Your task to perform on an android device: turn off smart reply in the gmail app Image 0: 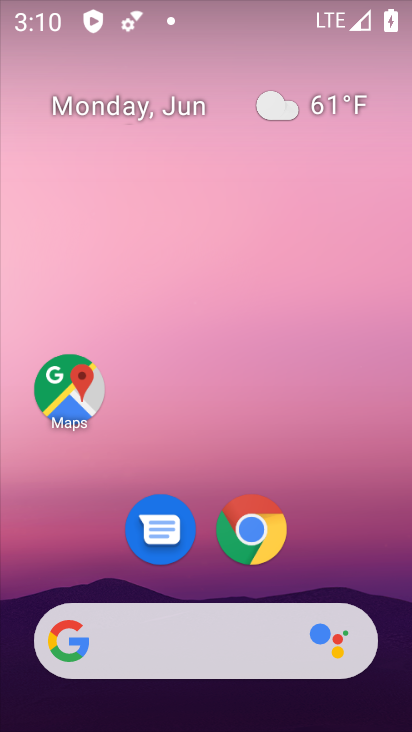
Step 0: press back button
Your task to perform on an android device: turn off smart reply in the gmail app Image 1: 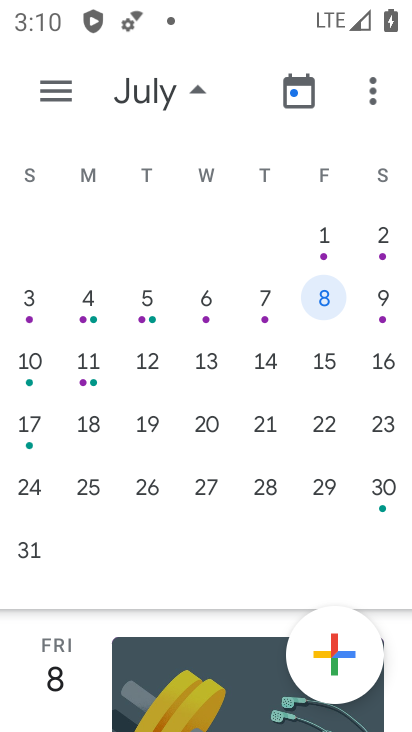
Step 1: drag from (307, 664) to (247, 114)
Your task to perform on an android device: turn off smart reply in the gmail app Image 2: 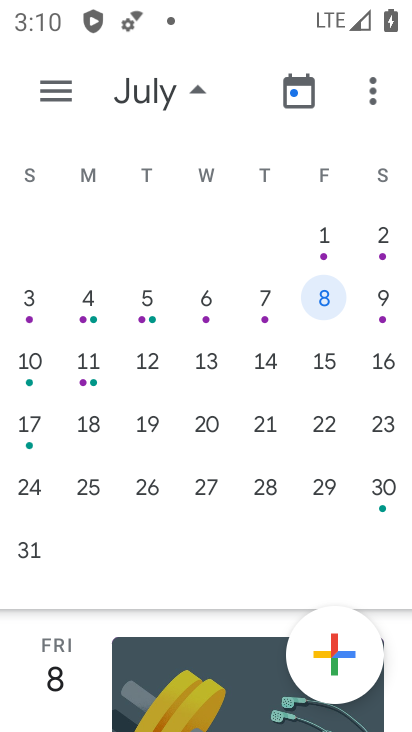
Step 2: press back button
Your task to perform on an android device: turn off smart reply in the gmail app Image 3: 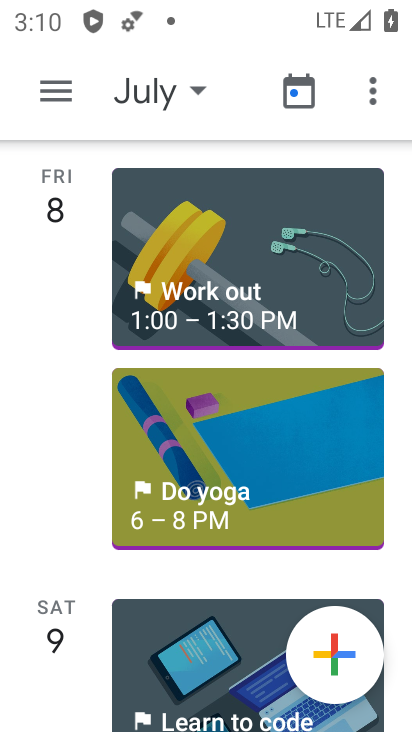
Step 3: press home button
Your task to perform on an android device: turn off smart reply in the gmail app Image 4: 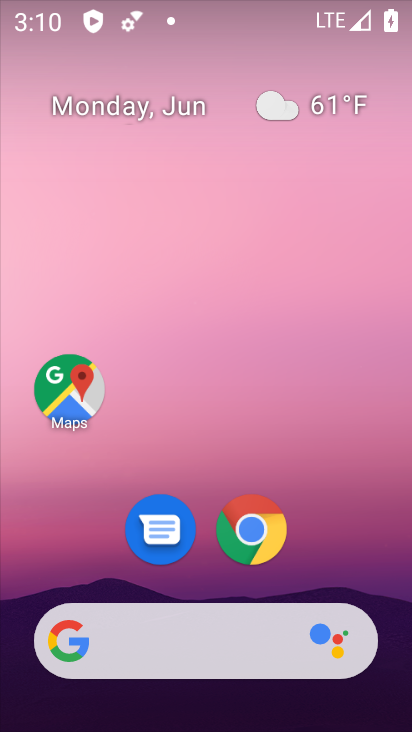
Step 4: drag from (223, 668) to (100, 0)
Your task to perform on an android device: turn off smart reply in the gmail app Image 5: 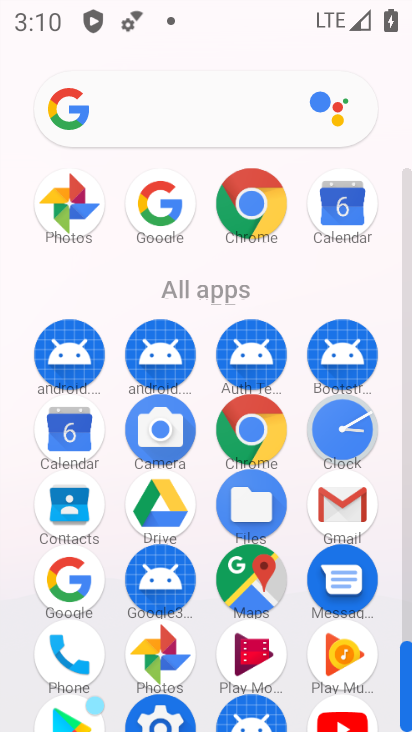
Step 5: click (335, 497)
Your task to perform on an android device: turn off smart reply in the gmail app Image 6: 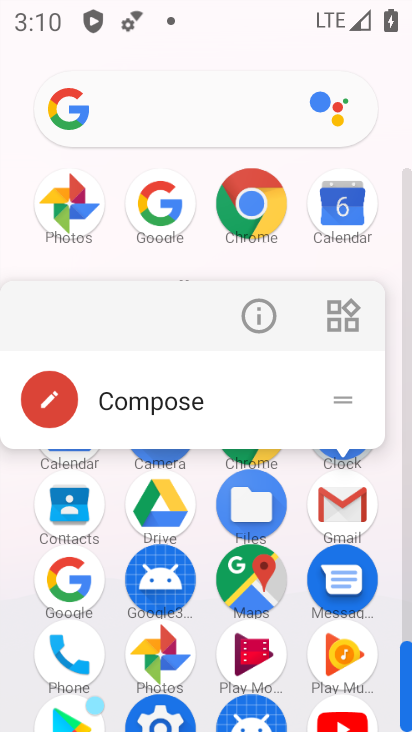
Step 6: click (319, 504)
Your task to perform on an android device: turn off smart reply in the gmail app Image 7: 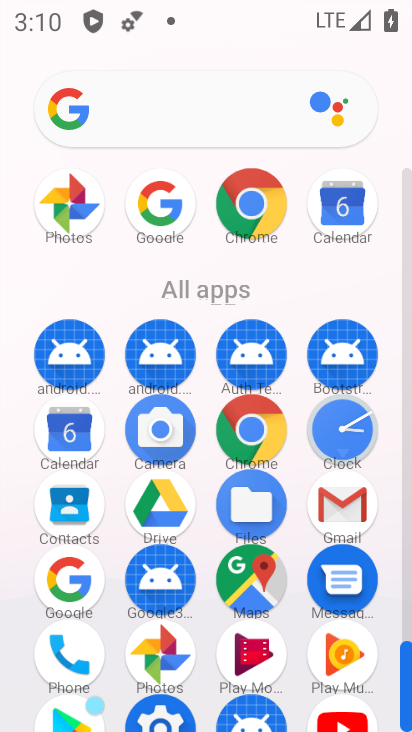
Step 7: click (325, 502)
Your task to perform on an android device: turn off smart reply in the gmail app Image 8: 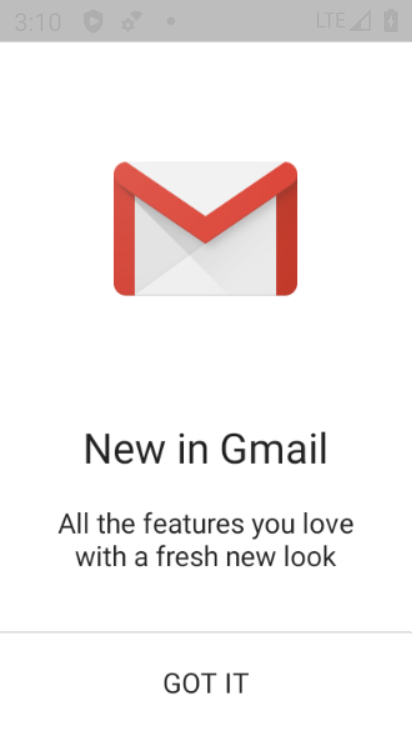
Step 8: click (329, 501)
Your task to perform on an android device: turn off smart reply in the gmail app Image 9: 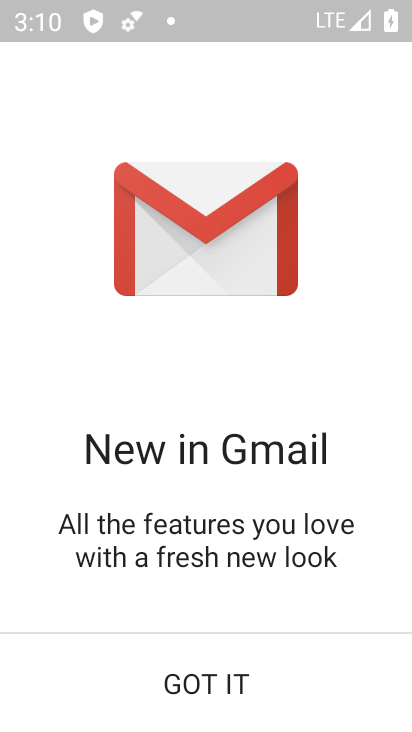
Step 9: click (330, 498)
Your task to perform on an android device: turn off smart reply in the gmail app Image 10: 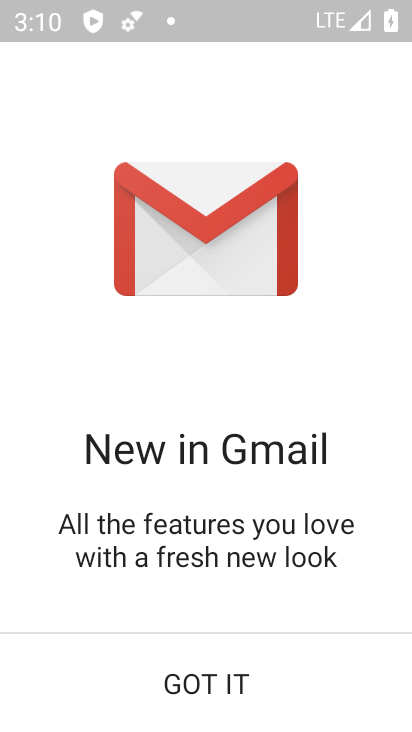
Step 10: click (201, 694)
Your task to perform on an android device: turn off smart reply in the gmail app Image 11: 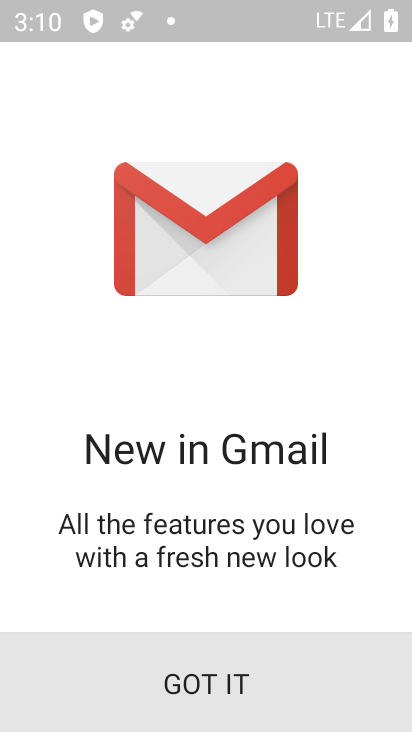
Step 11: click (205, 678)
Your task to perform on an android device: turn off smart reply in the gmail app Image 12: 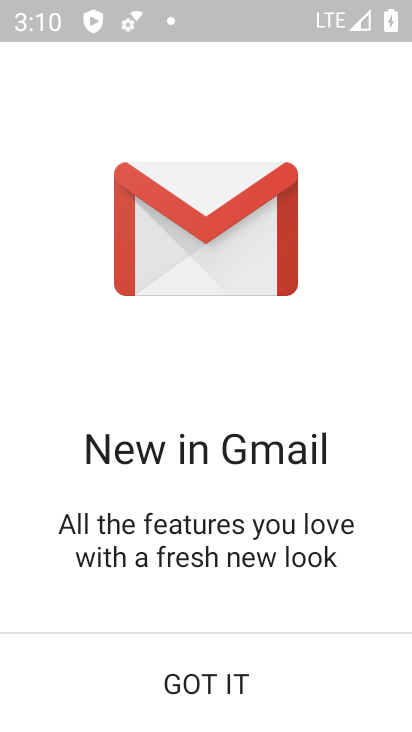
Step 12: click (205, 681)
Your task to perform on an android device: turn off smart reply in the gmail app Image 13: 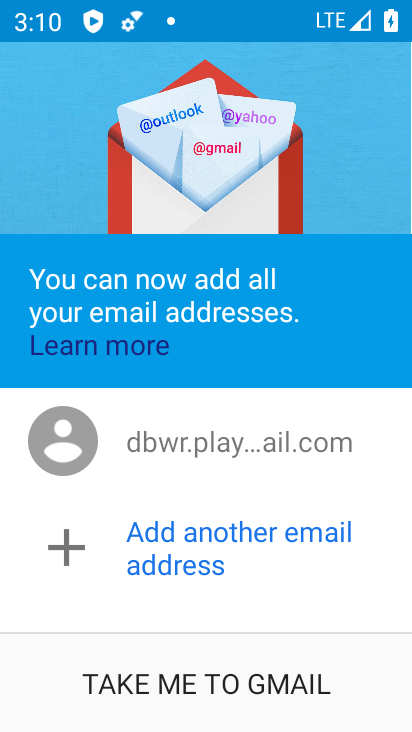
Step 13: click (202, 676)
Your task to perform on an android device: turn off smart reply in the gmail app Image 14: 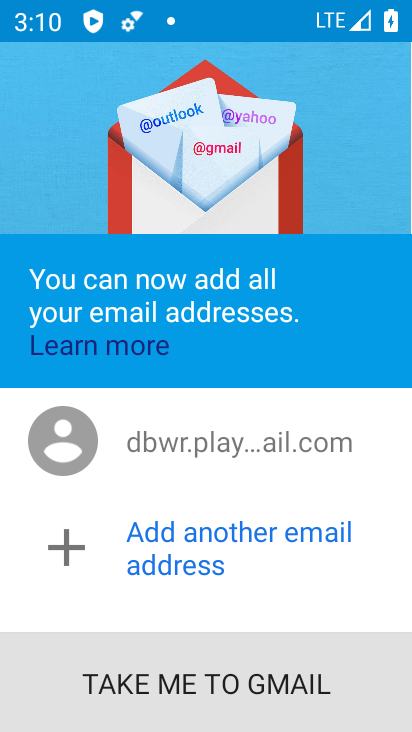
Step 14: click (197, 678)
Your task to perform on an android device: turn off smart reply in the gmail app Image 15: 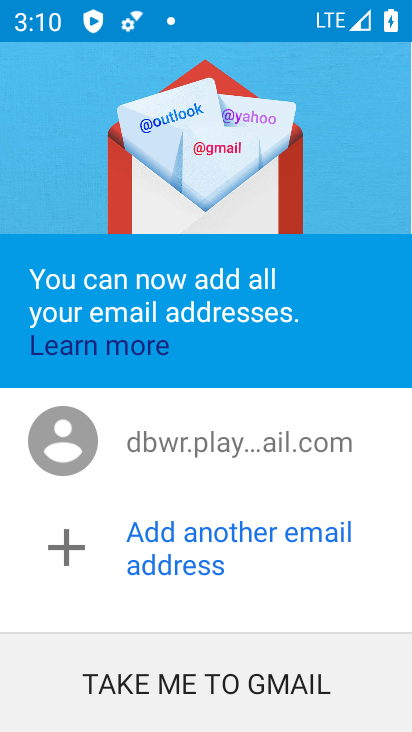
Step 15: click (193, 654)
Your task to perform on an android device: turn off smart reply in the gmail app Image 16: 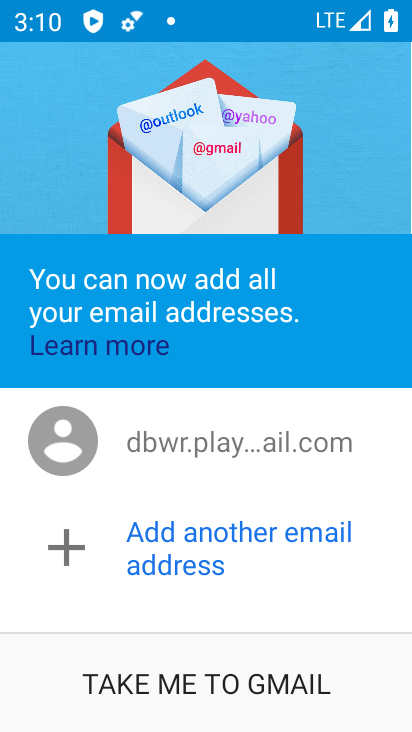
Step 16: click (196, 671)
Your task to perform on an android device: turn off smart reply in the gmail app Image 17: 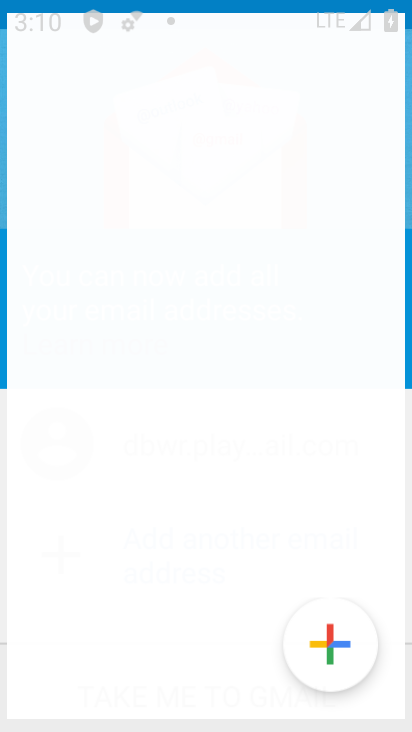
Step 17: click (198, 675)
Your task to perform on an android device: turn off smart reply in the gmail app Image 18: 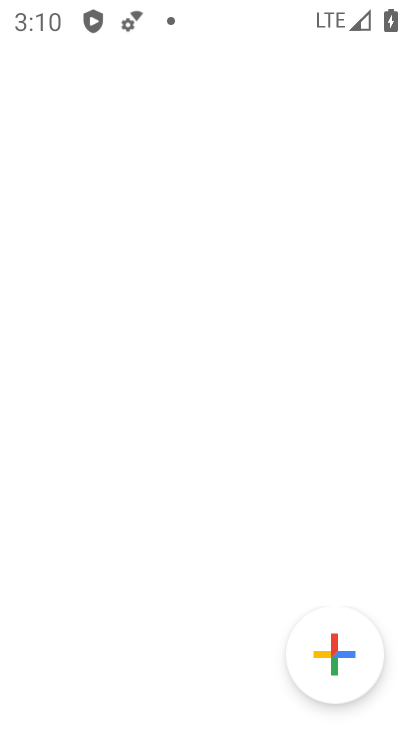
Step 18: click (201, 681)
Your task to perform on an android device: turn off smart reply in the gmail app Image 19: 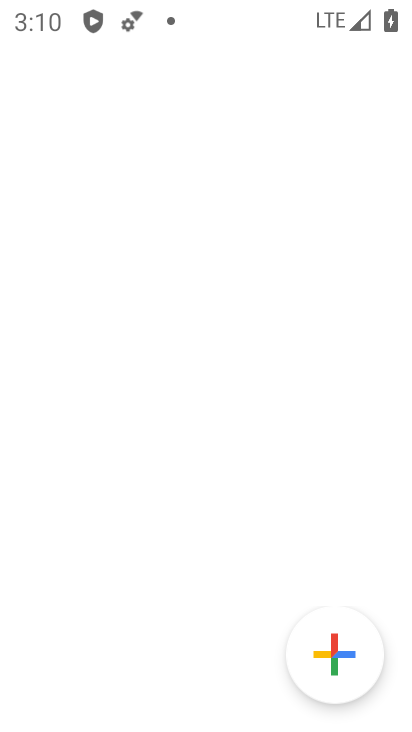
Step 19: click (205, 666)
Your task to perform on an android device: turn off smart reply in the gmail app Image 20: 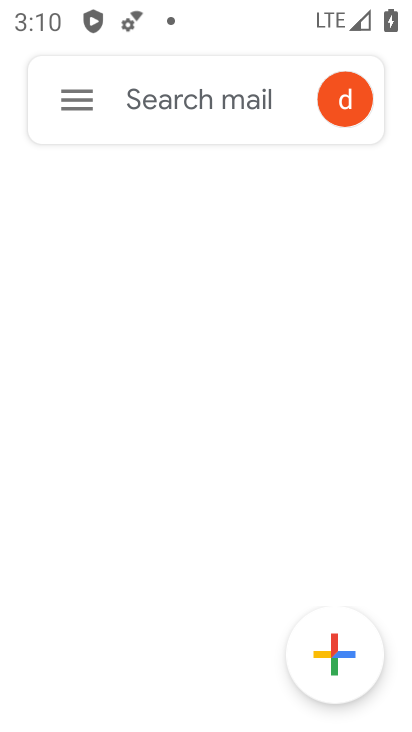
Step 20: click (90, 107)
Your task to perform on an android device: turn off smart reply in the gmail app Image 21: 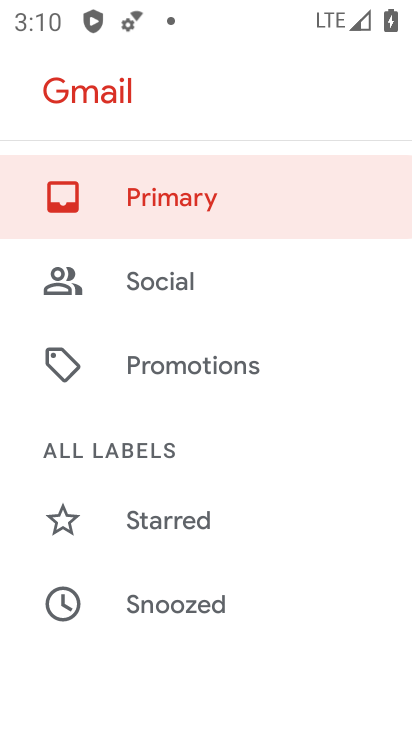
Step 21: drag from (152, 462) to (112, 100)
Your task to perform on an android device: turn off smart reply in the gmail app Image 22: 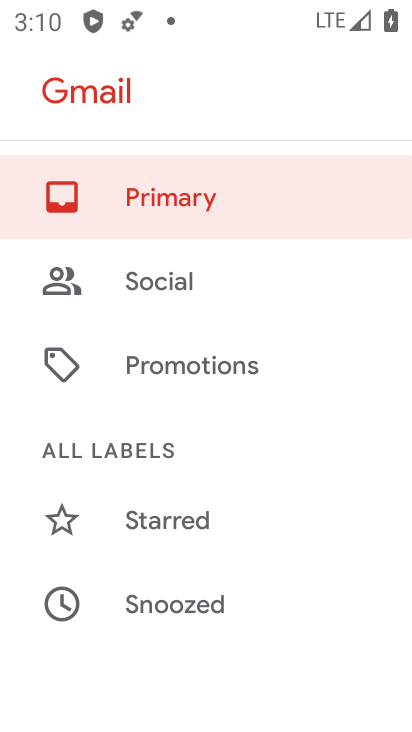
Step 22: drag from (175, 500) to (175, 162)
Your task to perform on an android device: turn off smart reply in the gmail app Image 23: 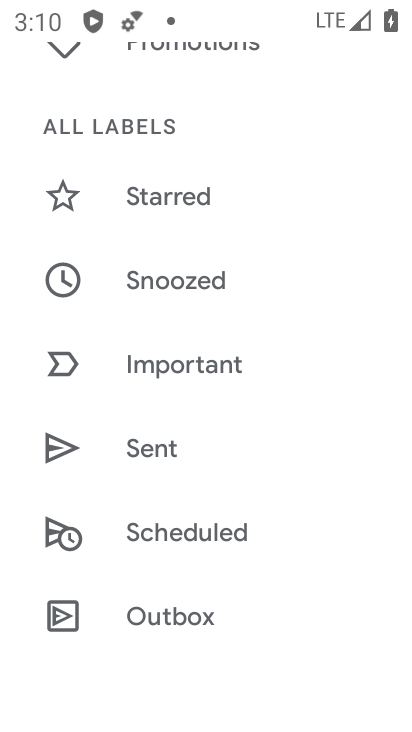
Step 23: click (179, 195)
Your task to perform on an android device: turn off smart reply in the gmail app Image 24: 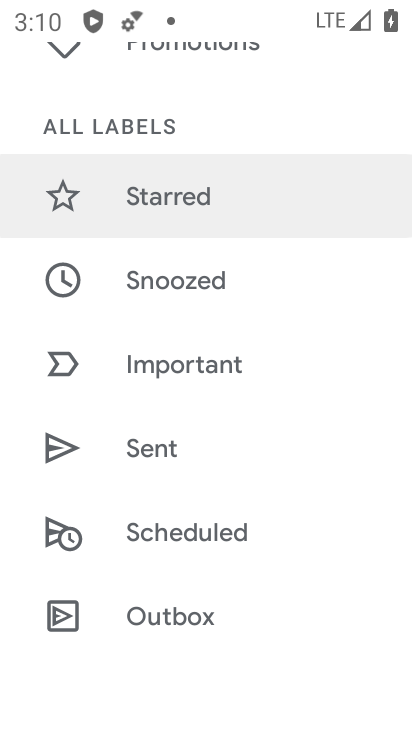
Step 24: click (174, 196)
Your task to perform on an android device: turn off smart reply in the gmail app Image 25: 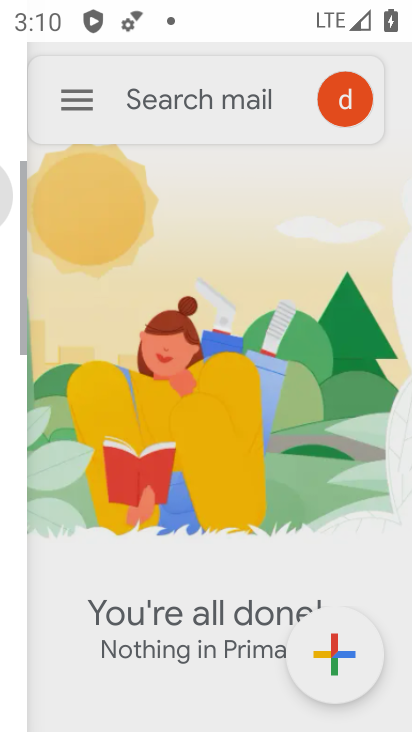
Step 25: click (174, 196)
Your task to perform on an android device: turn off smart reply in the gmail app Image 26: 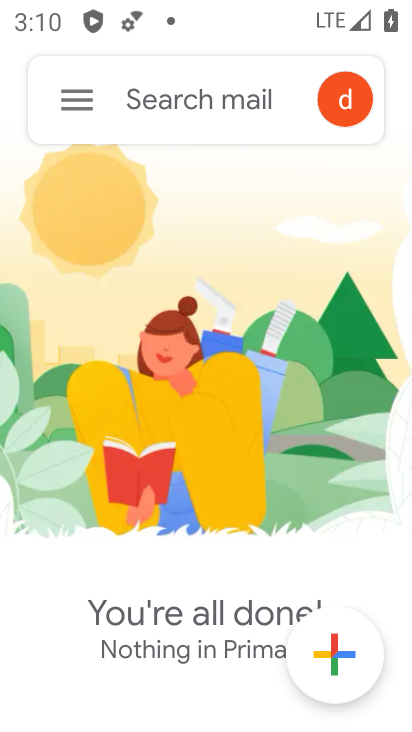
Step 26: click (174, 196)
Your task to perform on an android device: turn off smart reply in the gmail app Image 27: 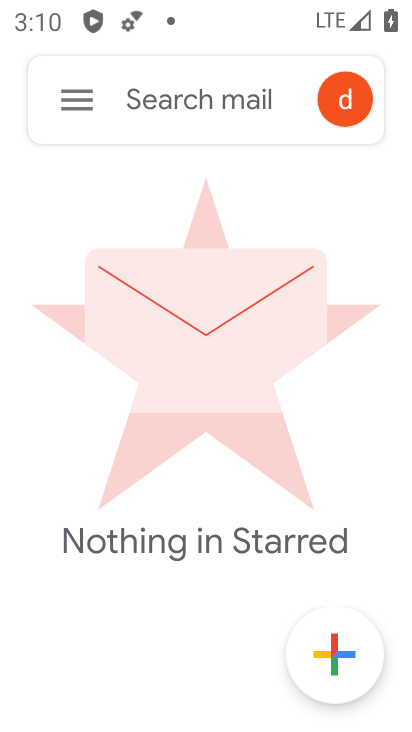
Step 27: click (83, 98)
Your task to perform on an android device: turn off smart reply in the gmail app Image 28: 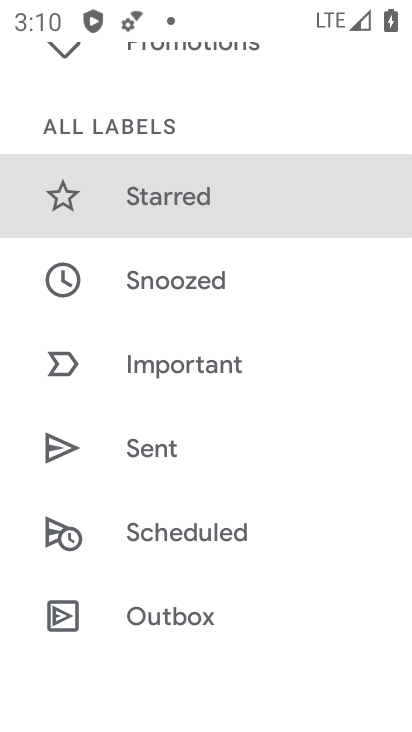
Step 28: drag from (193, 574) to (186, 206)
Your task to perform on an android device: turn off smart reply in the gmail app Image 29: 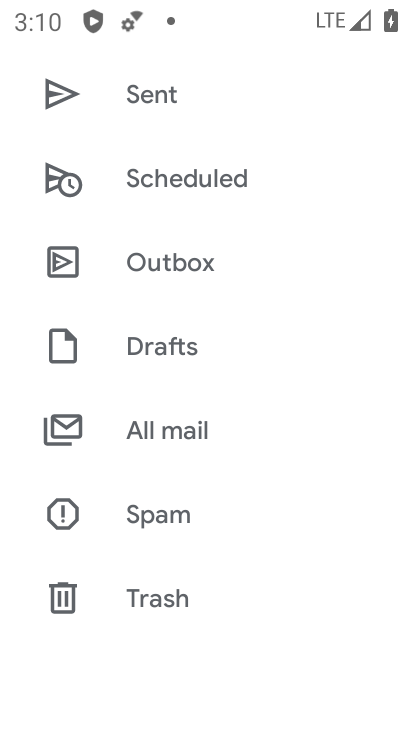
Step 29: click (179, 283)
Your task to perform on an android device: turn off smart reply in the gmail app Image 30: 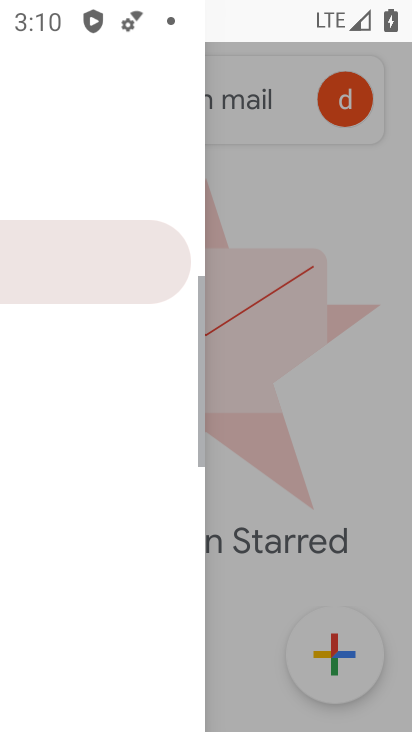
Step 30: click (237, 66)
Your task to perform on an android device: turn off smart reply in the gmail app Image 31: 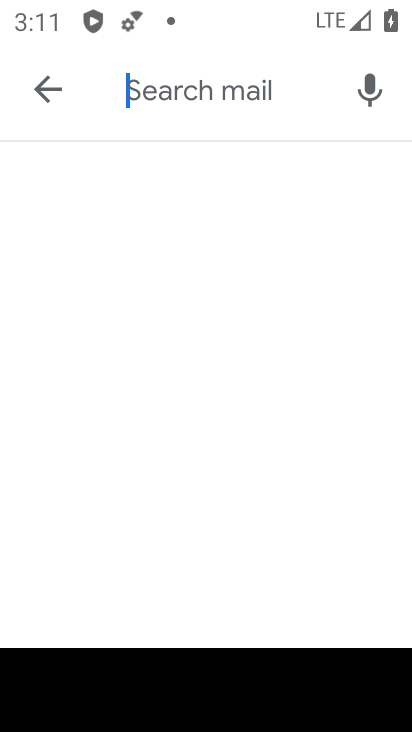
Step 31: click (36, 93)
Your task to perform on an android device: turn off smart reply in the gmail app Image 32: 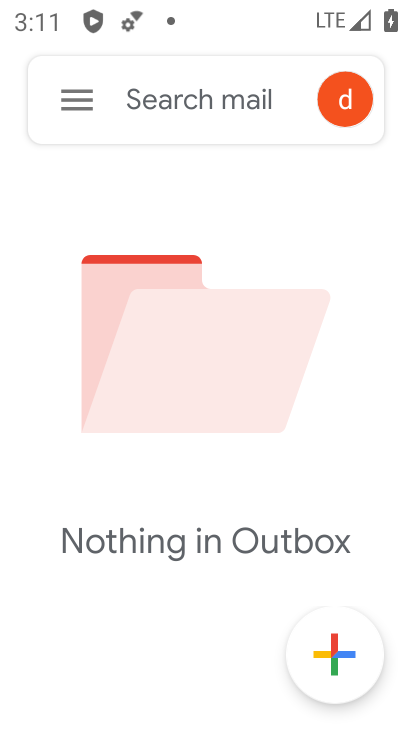
Step 32: click (88, 102)
Your task to perform on an android device: turn off smart reply in the gmail app Image 33: 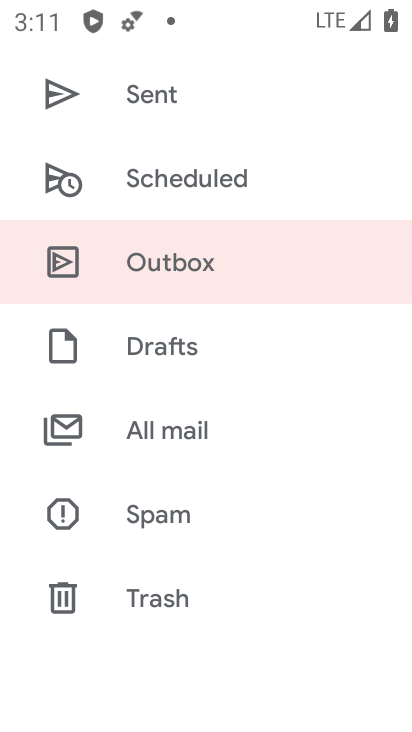
Step 33: drag from (166, 527) to (130, 4)
Your task to perform on an android device: turn off smart reply in the gmail app Image 34: 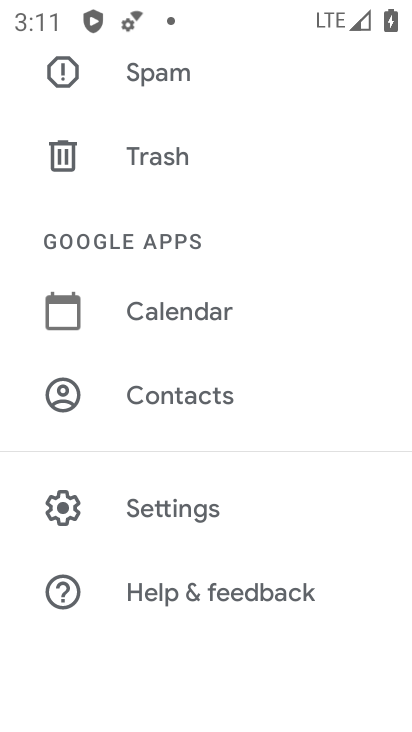
Step 34: drag from (181, 412) to (167, 120)
Your task to perform on an android device: turn off smart reply in the gmail app Image 35: 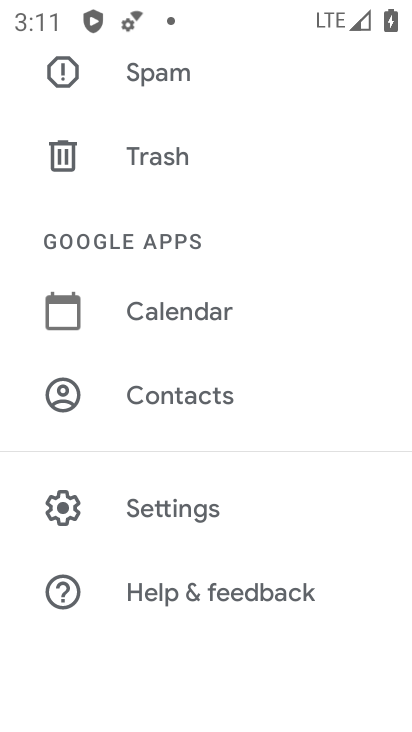
Step 35: drag from (220, 512) to (211, 141)
Your task to perform on an android device: turn off smart reply in the gmail app Image 36: 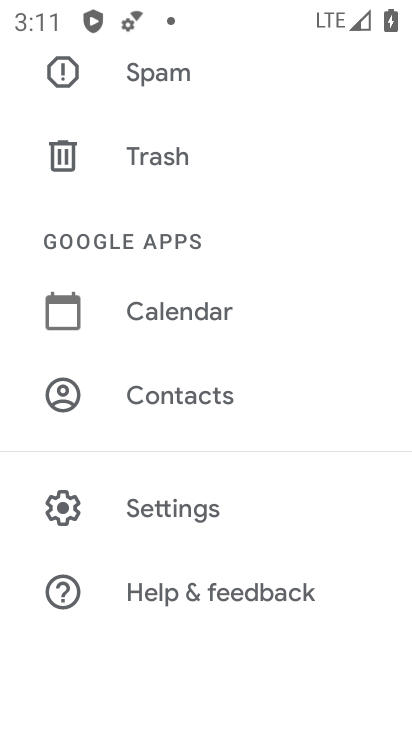
Step 36: click (171, 504)
Your task to perform on an android device: turn off smart reply in the gmail app Image 37: 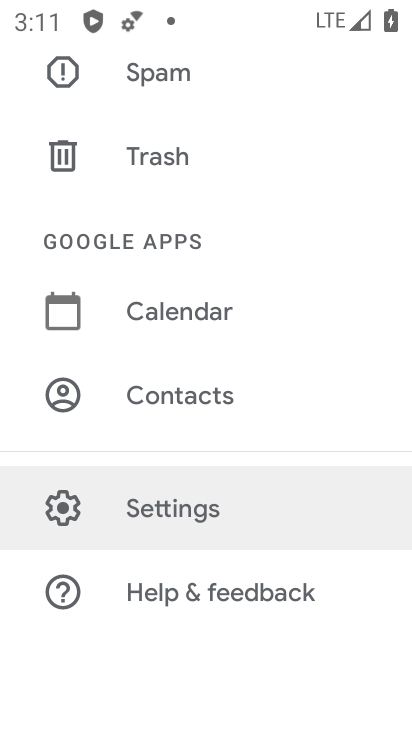
Step 37: click (171, 504)
Your task to perform on an android device: turn off smart reply in the gmail app Image 38: 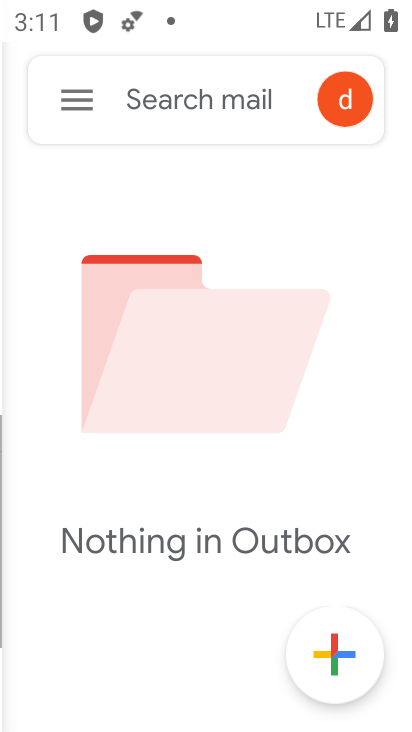
Step 38: click (171, 504)
Your task to perform on an android device: turn off smart reply in the gmail app Image 39: 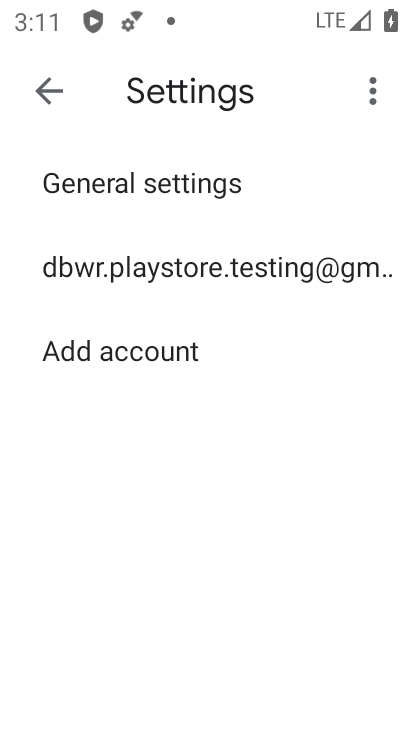
Step 39: click (163, 243)
Your task to perform on an android device: turn off smart reply in the gmail app Image 40: 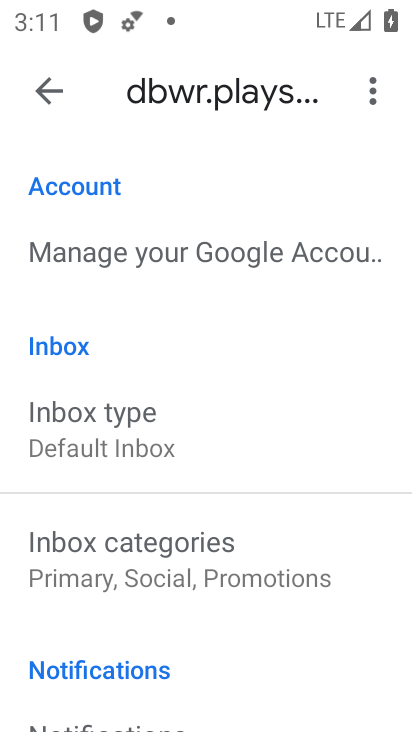
Step 40: drag from (104, 531) to (81, 337)
Your task to perform on an android device: turn off smart reply in the gmail app Image 41: 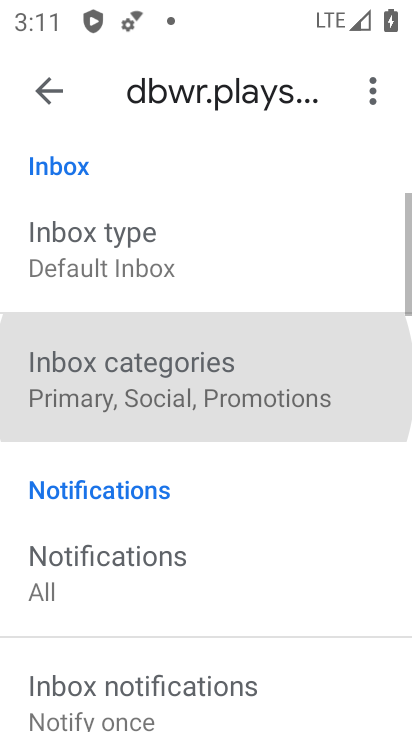
Step 41: drag from (117, 555) to (96, 261)
Your task to perform on an android device: turn off smart reply in the gmail app Image 42: 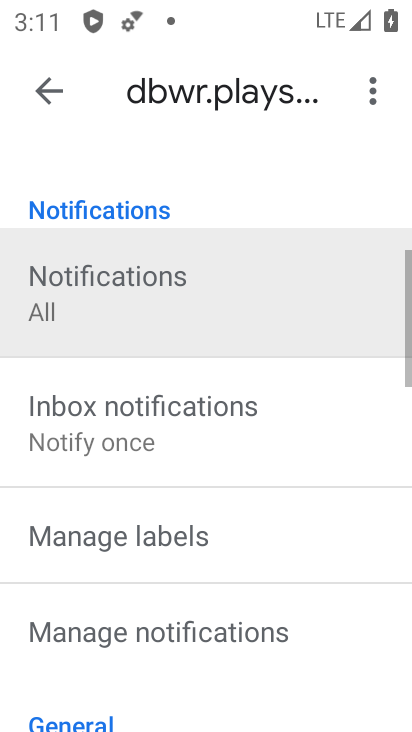
Step 42: drag from (143, 548) to (135, 290)
Your task to perform on an android device: turn off smart reply in the gmail app Image 43: 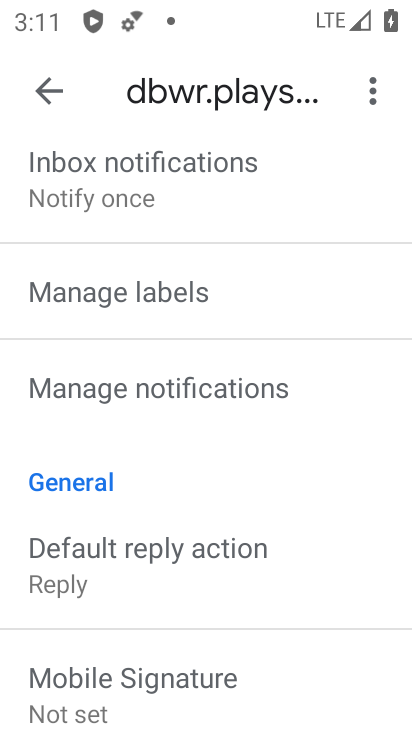
Step 43: drag from (64, 198) to (152, 644)
Your task to perform on an android device: turn off smart reply in the gmail app Image 44: 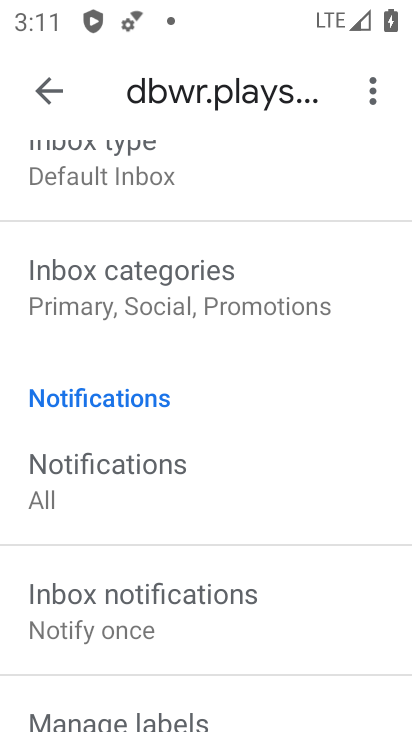
Step 44: drag from (81, 422) to (82, 196)
Your task to perform on an android device: turn off smart reply in the gmail app Image 45: 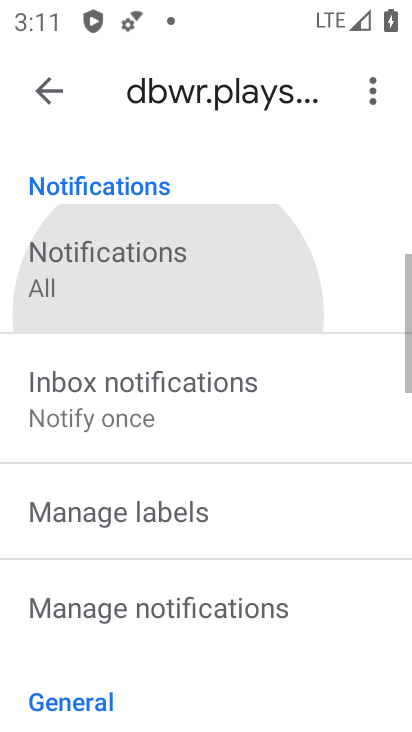
Step 45: drag from (131, 617) to (105, 333)
Your task to perform on an android device: turn off smart reply in the gmail app Image 46: 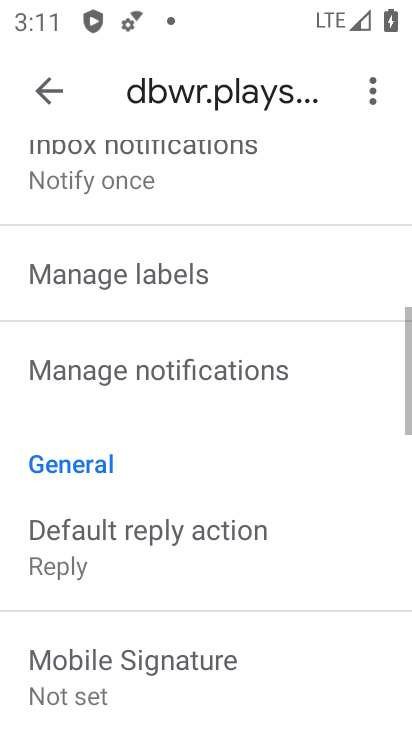
Step 46: drag from (120, 464) to (76, 224)
Your task to perform on an android device: turn off smart reply in the gmail app Image 47: 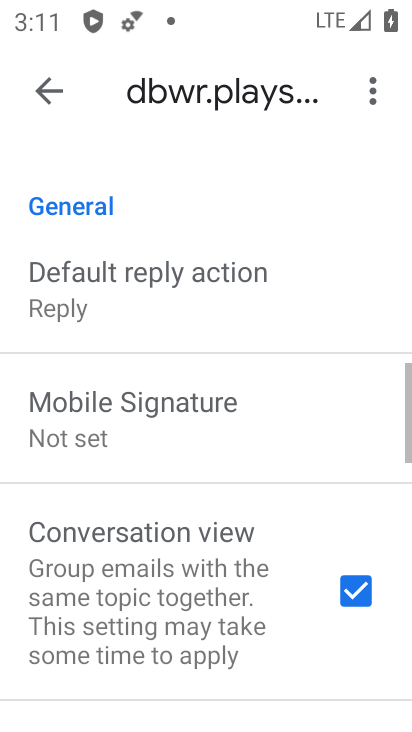
Step 47: drag from (136, 531) to (117, 247)
Your task to perform on an android device: turn off smart reply in the gmail app Image 48: 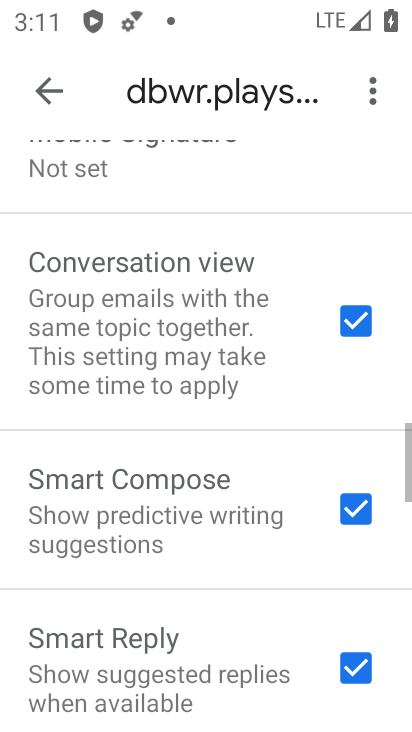
Step 48: drag from (116, 498) to (113, 254)
Your task to perform on an android device: turn off smart reply in the gmail app Image 49: 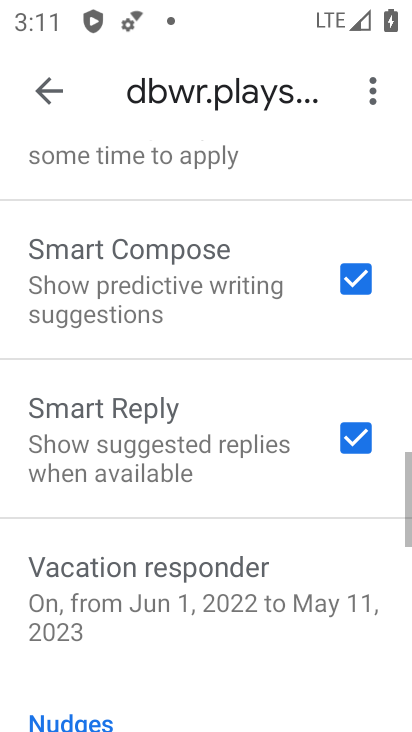
Step 49: drag from (139, 541) to (112, 332)
Your task to perform on an android device: turn off smart reply in the gmail app Image 50: 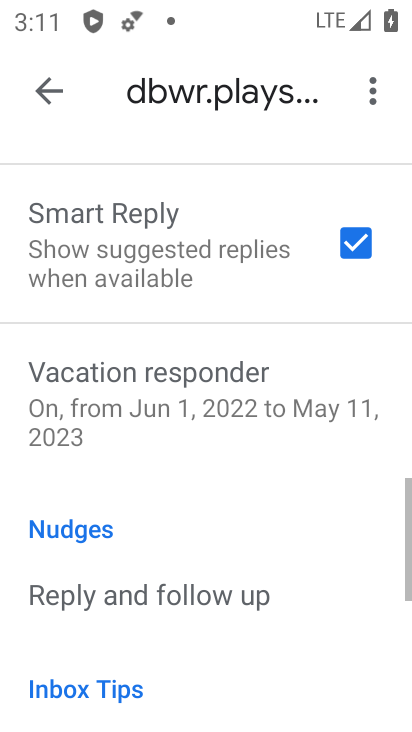
Step 50: drag from (132, 494) to (132, 348)
Your task to perform on an android device: turn off smart reply in the gmail app Image 51: 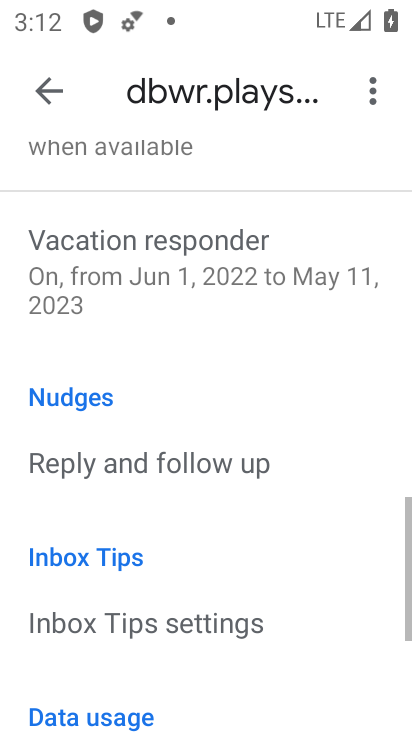
Step 51: drag from (141, 487) to (128, 302)
Your task to perform on an android device: turn off smart reply in the gmail app Image 52: 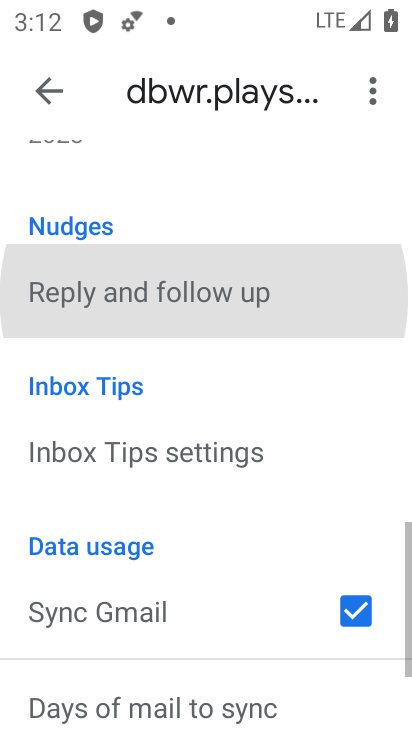
Step 52: drag from (103, 502) to (103, 275)
Your task to perform on an android device: turn off smart reply in the gmail app Image 53: 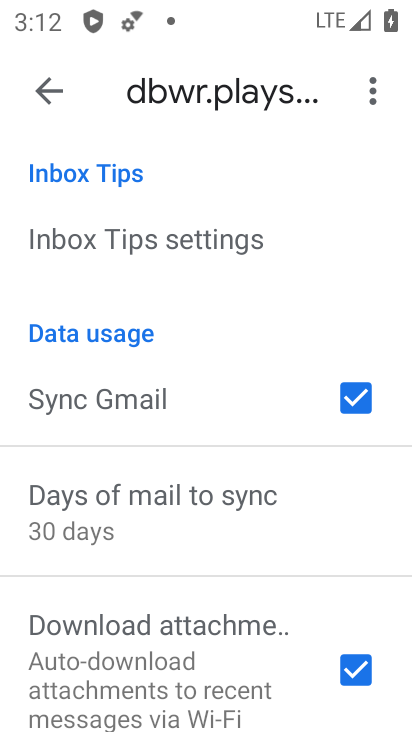
Step 53: drag from (160, 560) to (125, 291)
Your task to perform on an android device: turn off smart reply in the gmail app Image 54: 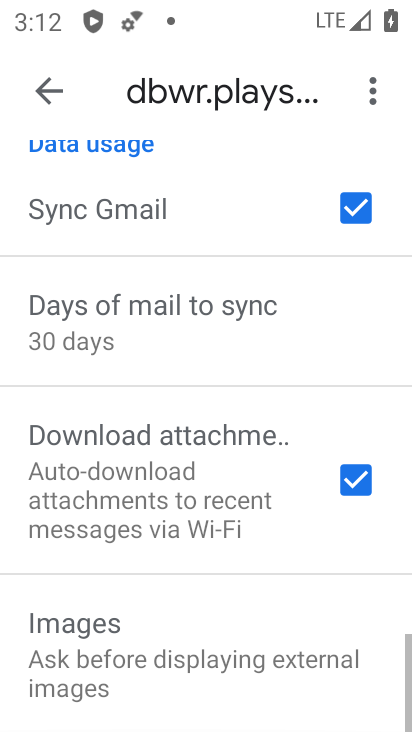
Step 54: drag from (215, 579) to (172, 281)
Your task to perform on an android device: turn off smart reply in the gmail app Image 55: 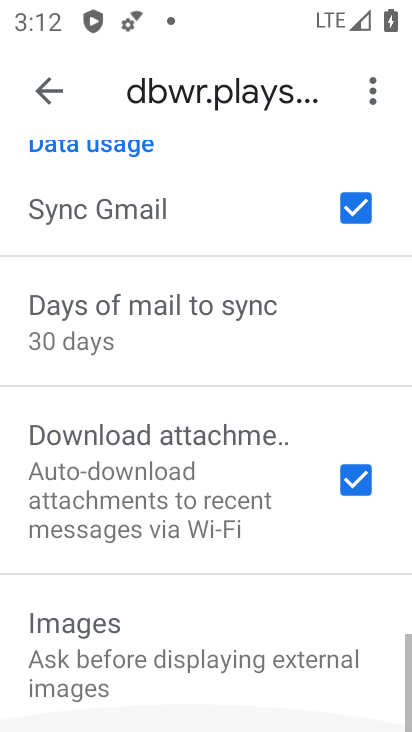
Step 55: drag from (152, 533) to (110, 189)
Your task to perform on an android device: turn off smart reply in the gmail app Image 56: 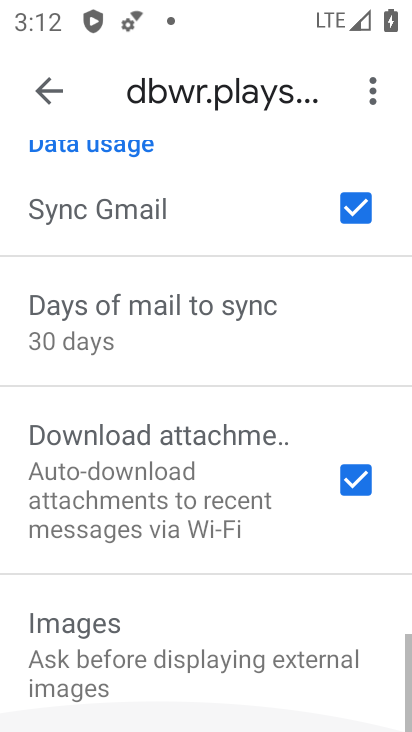
Step 56: drag from (178, 590) to (157, 448)
Your task to perform on an android device: turn off smart reply in the gmail app Image 57: 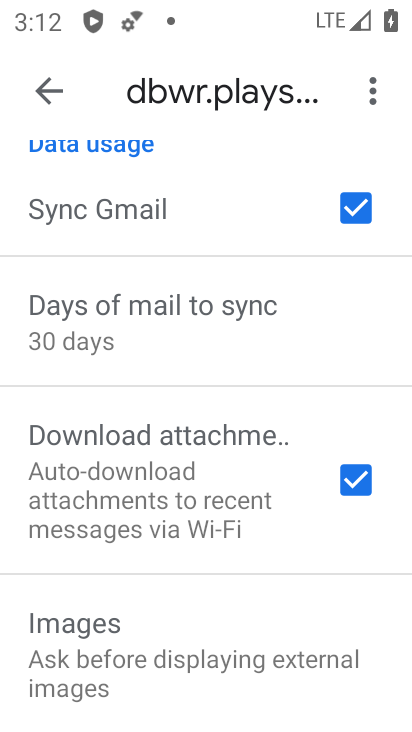
Step 57: drag from (216, 603) to (197, 322)
Your task to perform on an android device: turn off smart reply in the gmail app Image 58: 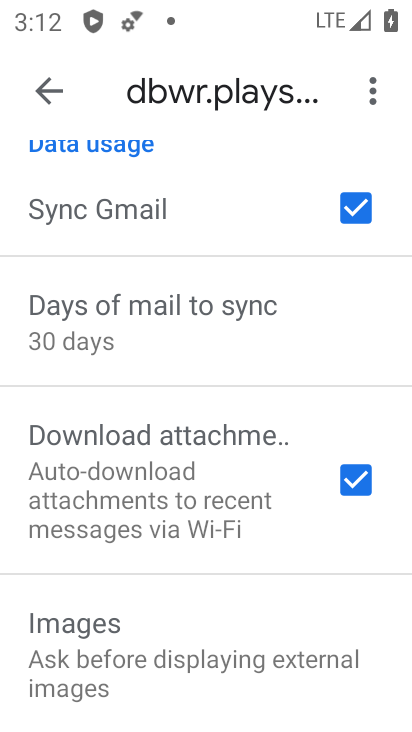
Step 58: click (89, 173)
Your task to perform on an android device: turn off smart reply in the gmail app Image 59: 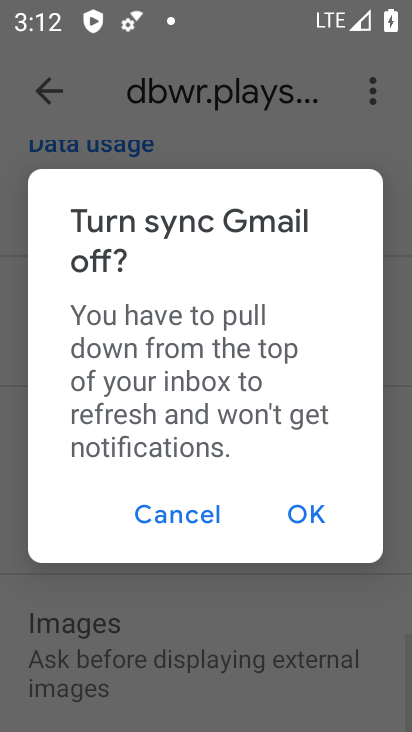
Step 59: click (163, 524)
Your task to perform on an android device: turn off smart reply in the gmail app Image 60: 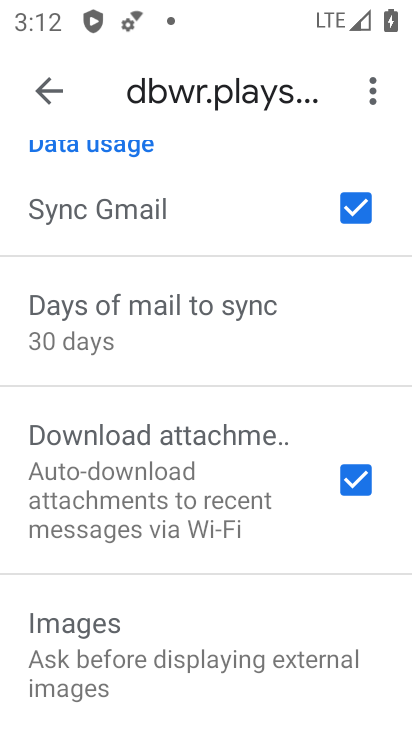
Step 60: drag from (146, 563) to (96, 92)
Your task to perform on an android device: turn off smart reply in the gmail app Image 61: 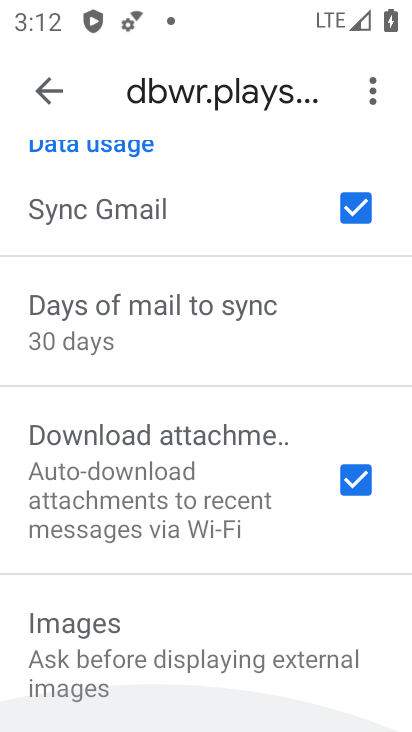
Step 61: drag from (122, 398) to (98, 114)
Your task to perform on an android device: turn off smart reply in the gmail app Image 62: 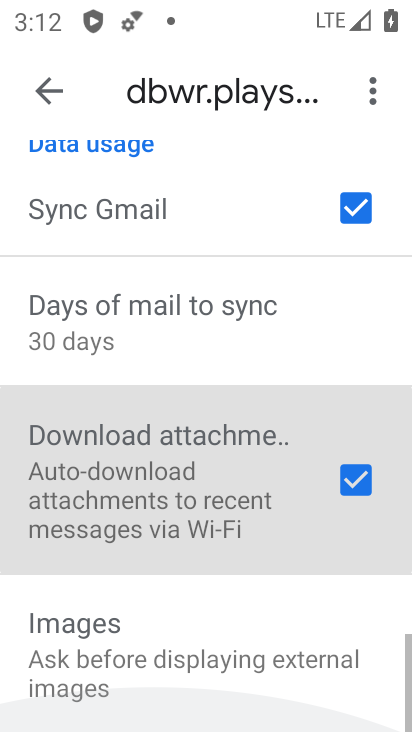
Step 62: drag from (126, 416) to (115, 198)
Your task to perform on an android device: turn off smart reply in the gmail app Image 63: 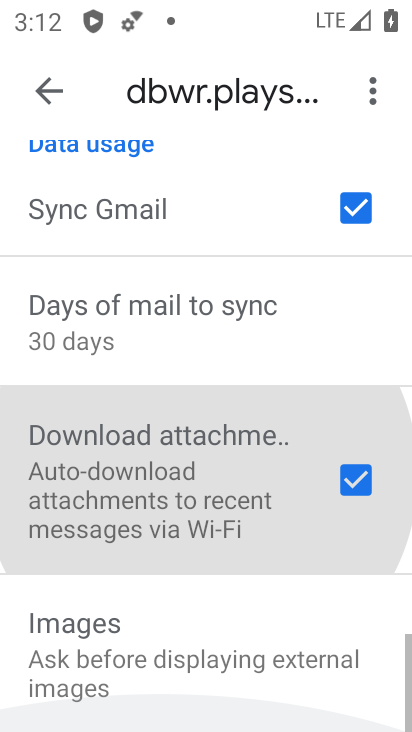
Step 63: drag from (134, 462) to (130, 569)
Your task to perform on an android device: turn off smart reply in the gmail app Image 64: 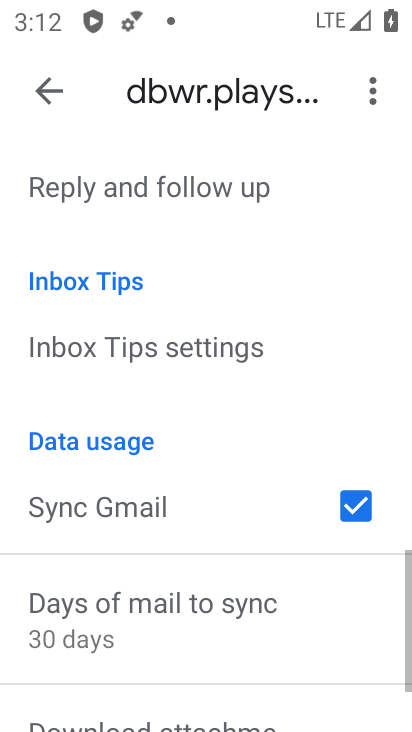
Step 64: drag from (98, 293) to (114, 530)
Your task to perform on an android device: turn off smart reply in the gmail app Image 65: 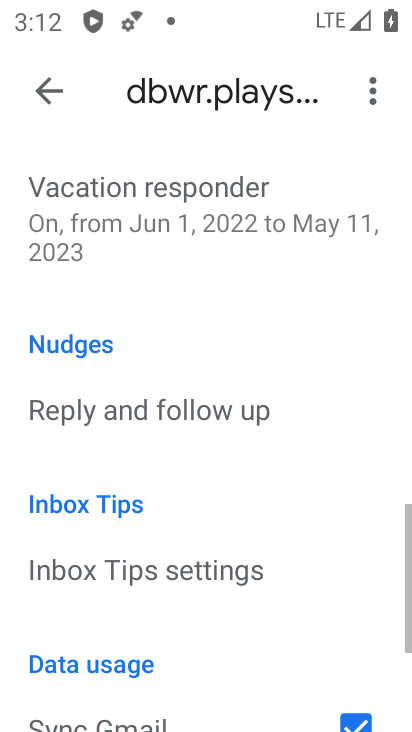
Step 65: drag from (125, 310) to (181, 541)
Your task to perform on an android device: turn off smart reply in the gmail app Image 66: 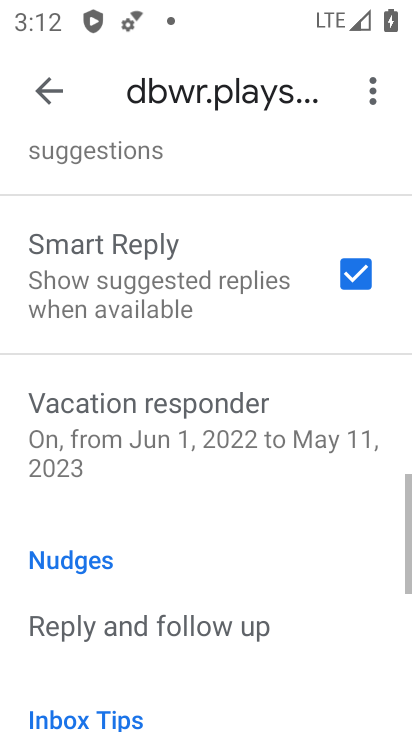
Step 66: drag from (117, 276) to (158, 570)
Your task to perform on an android device: turn off smart reply in the gmail app Image 67: 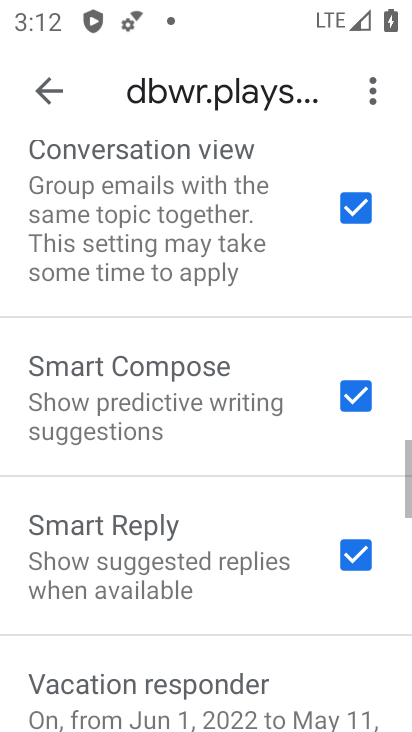
Step 67: drag from (134, 249) to (194, 568)
Your task to perform on an android device: turn off smart reply in the gmail app Image 68: 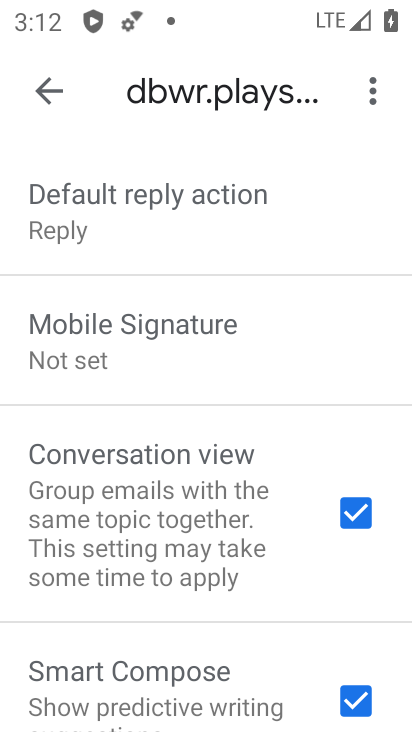
Step 68: drag from (139, 541) to (83, 210)
Your task to perform on an android device: turn off smart reply in the gmail app Image 69: 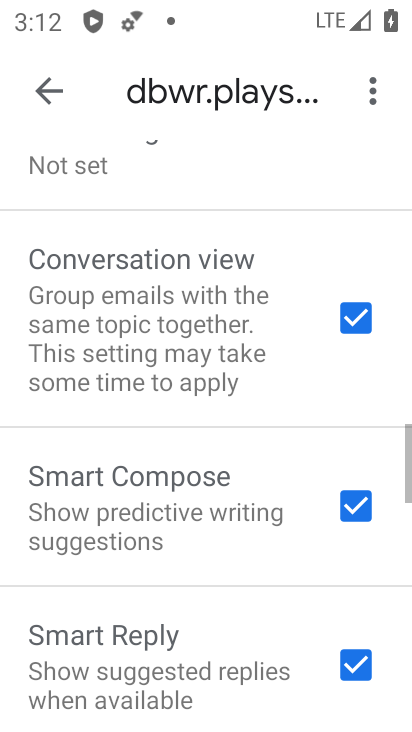
Step 69: drag from (121, 489) to (107, 192)
Your task to perform on an android device: turn off smart reply in the gmail app Image 70: 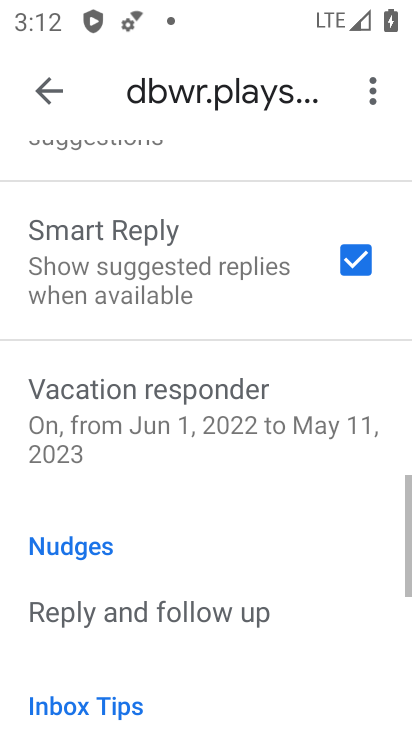
Step 70: drag from (146, 456) to (146, 242)
Your task to perform on an android device: turn off smart reply in the gmail app Image 71: 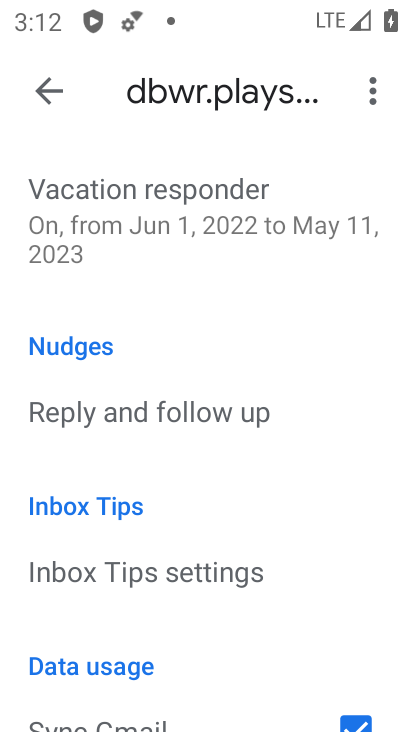
Step 71: click (233, 190)
Your task to perform on an android device: turn off smart reply in the gmail app Image 72: 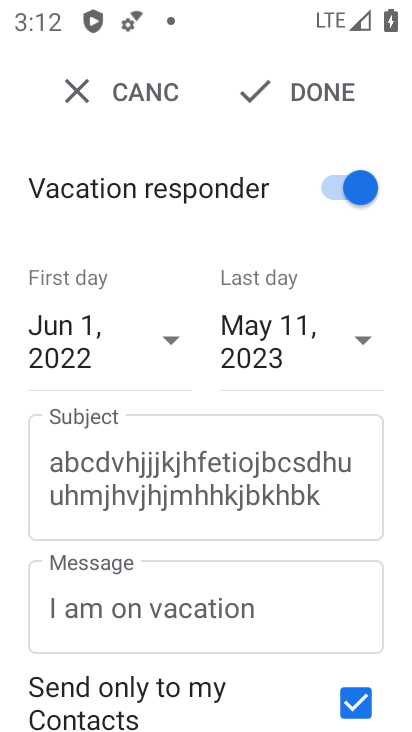
Step 72: click (351, 167)
Your task to perform on an android device: turn off smart reply in the gmail app Image 73: 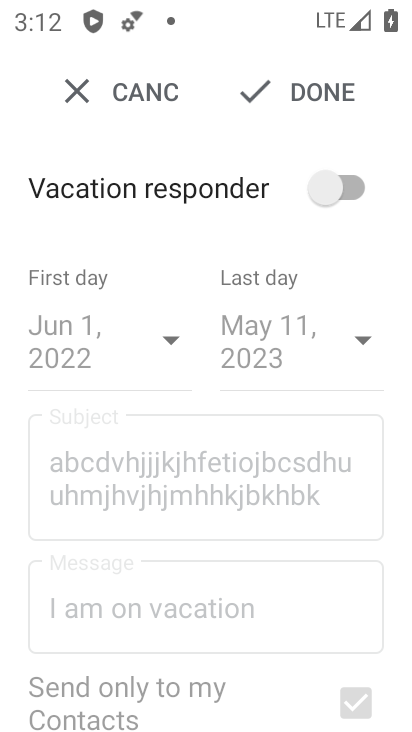
Step 73: task complete